Your task to perform on an android device: Open the map Image 0: 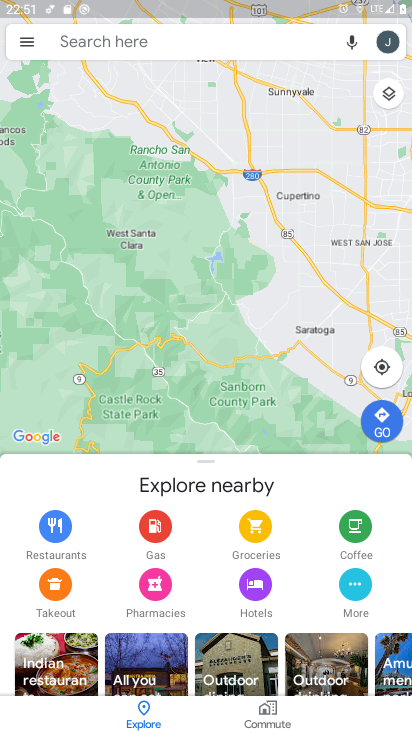
Step 0: task complete